Your task to perform on an android device: Go to calendar. Show me events next week Image 0: 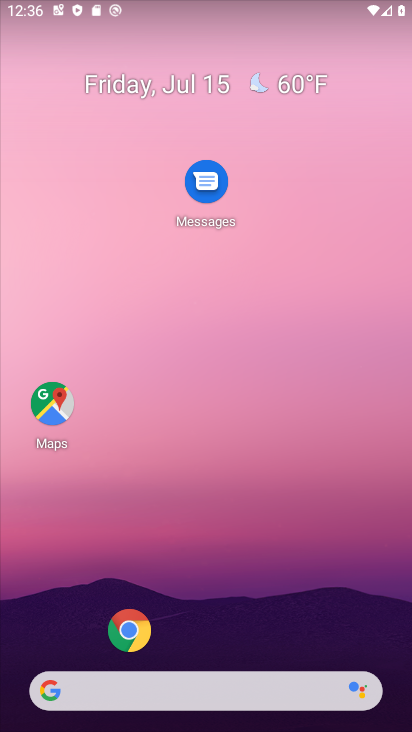
Step 0: drag from (128, 475) to (337, 0)
Your task to perform on an android device: Go to calendar. Show me events next week Image 1: 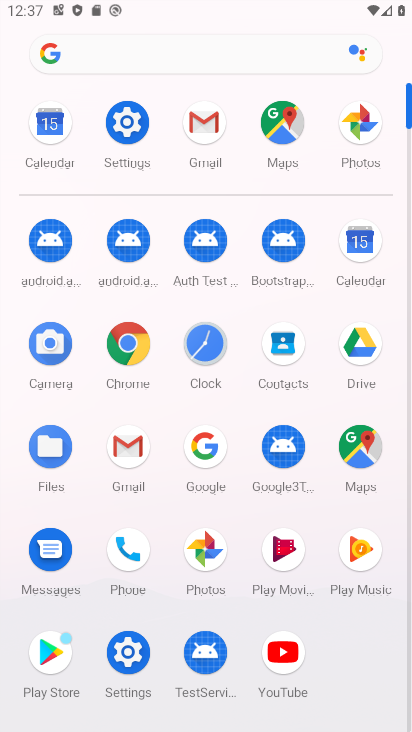
Step 1: click (367, 258)
Your task to perform on an android device: Go to calendar. Show me events next week Image 2: 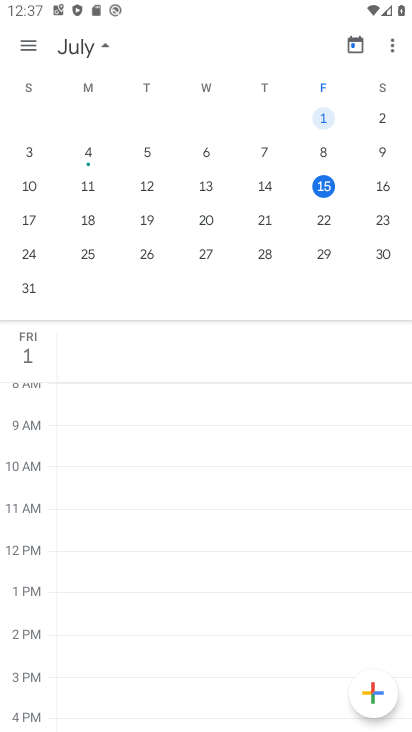
Step 2: click (29, 49)
Your task to perform on an android device: Go to calendar. Show me events next week Image 3: 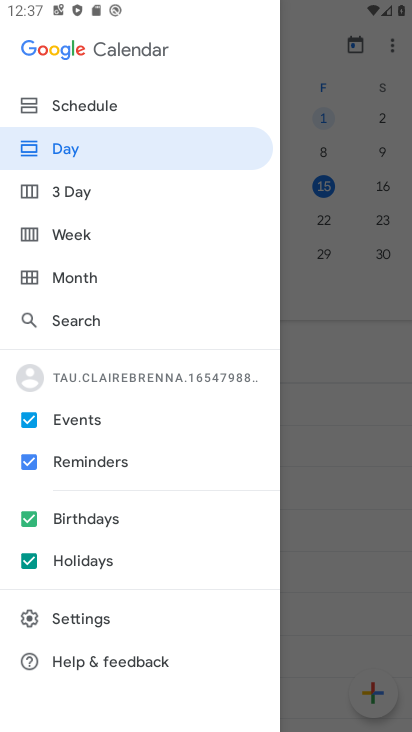
Step 3: task complete